Your task to perform on an android device: uninstall "DoorDash - Food Delivery" Image 0: 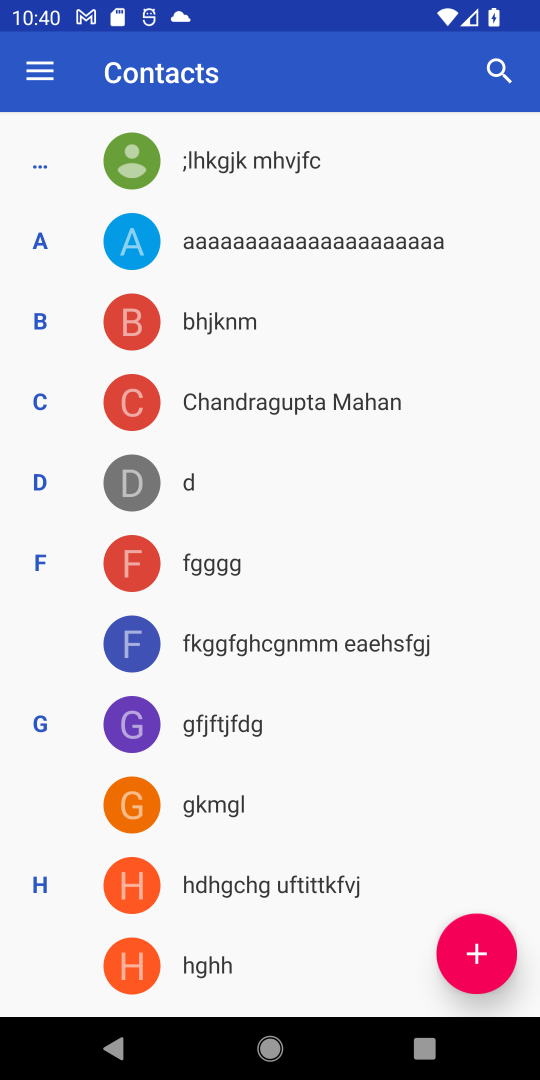
Step 0: press home button
Your task to perform on an android device: uninstall "DoorDash - Food Delivery" Image 1: 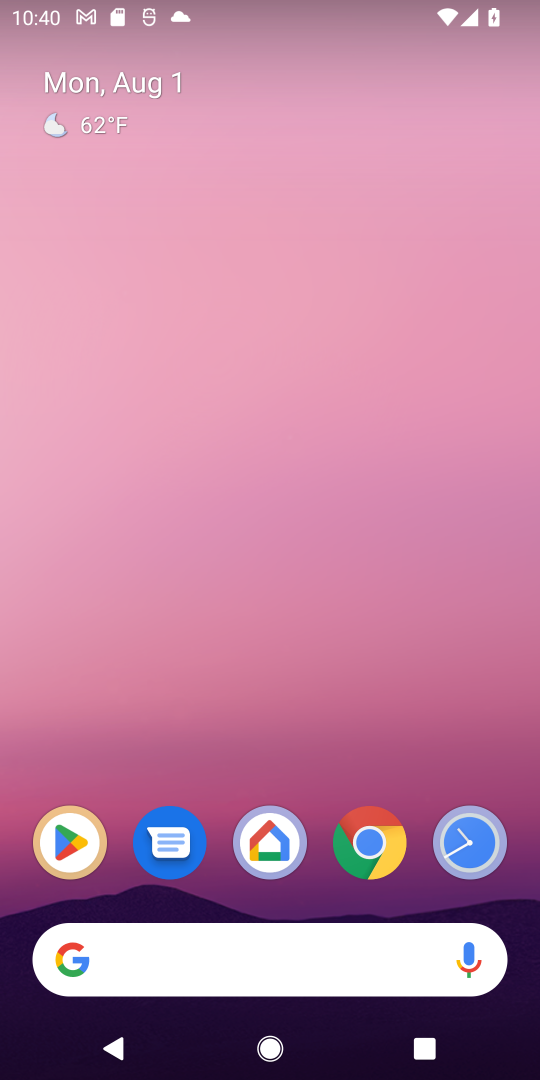
Step 1: click (78, 839)
Your task to perform on an android device: uninstall "DoorDash - Food Delivery" Image 2: 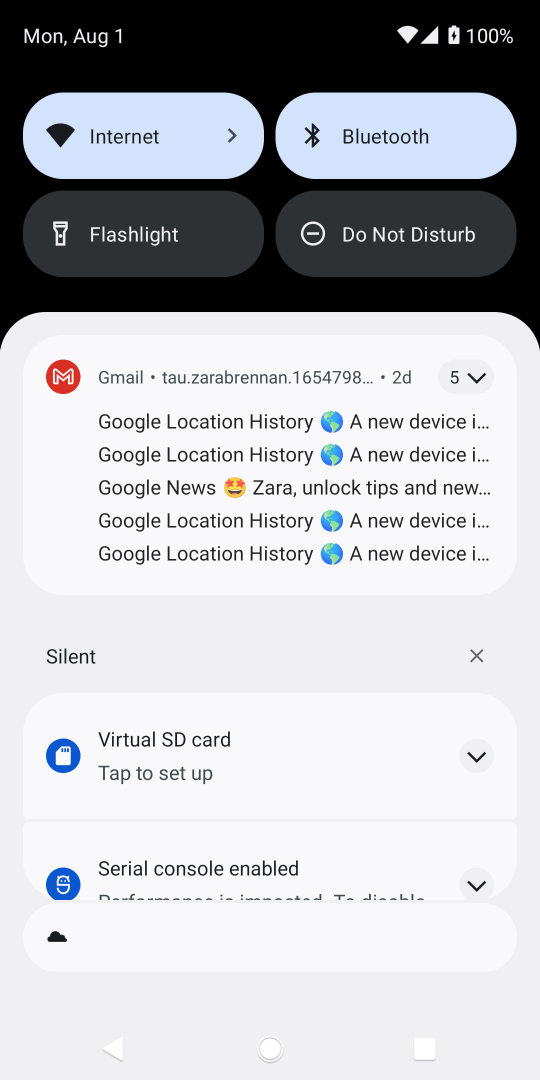
Step 2: click (70, 832)
Your task to perform on an android device: uninstall "DoorDash - Food Delivery" Image 3: 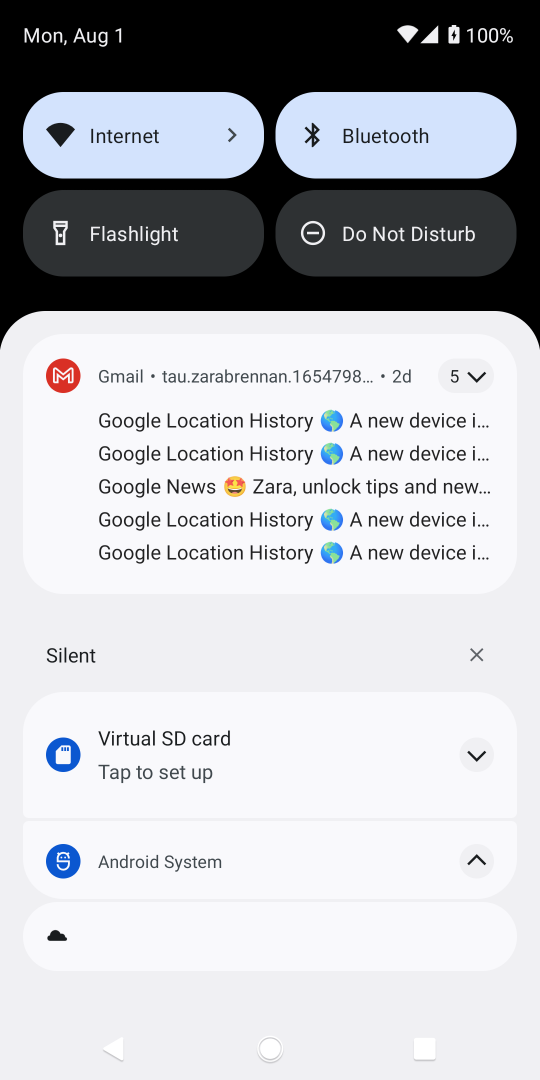
Step 3: press home button
Your task to perform on an android device: uninstall "DoorDash - Food Delivery" Image 4: 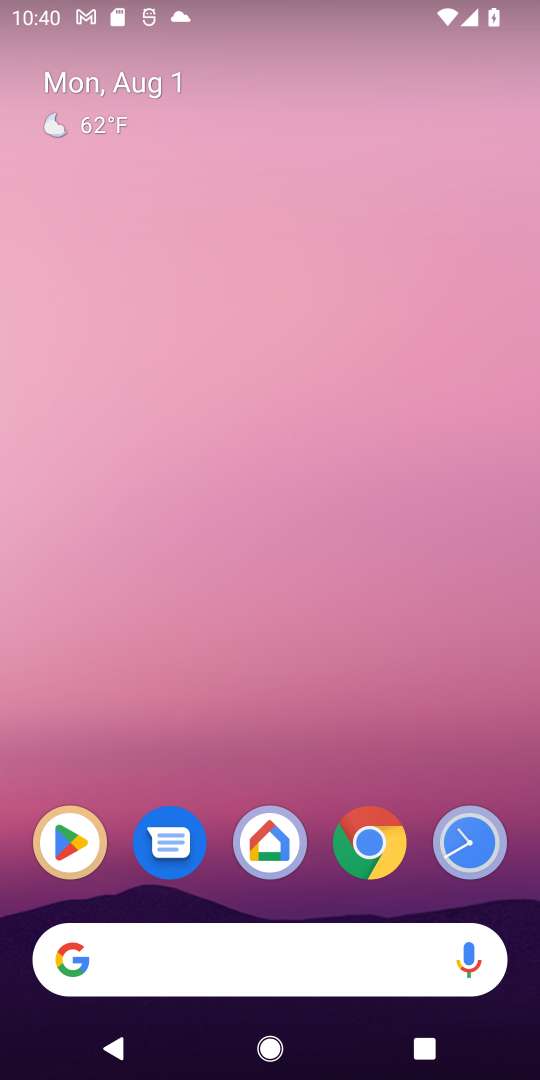
Step 4: click (90, 847)
Your task to perform on an android device: uninstall "DoorDash - Food Delivery" Image 5: 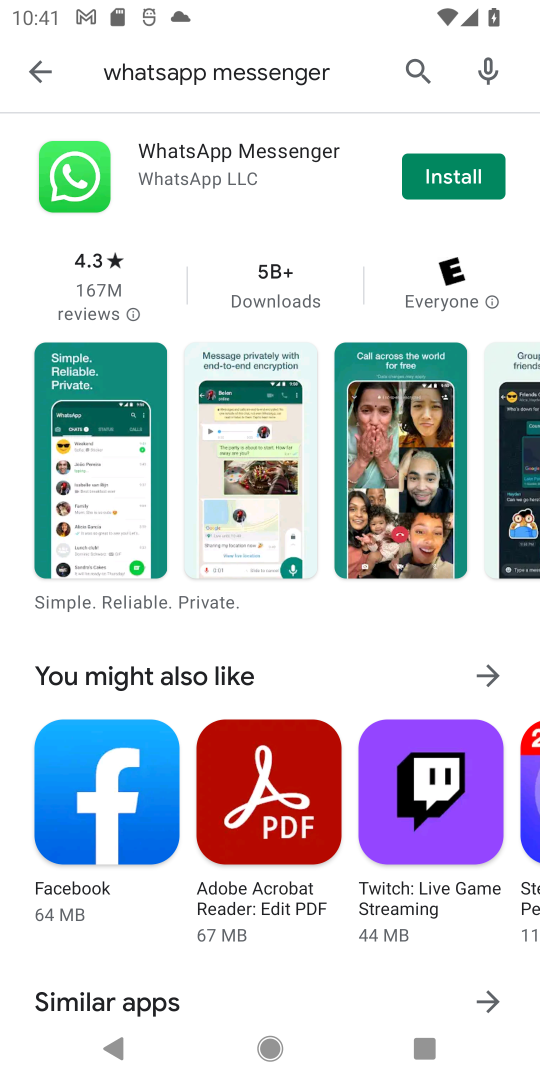
Step 5: click (413, 64)
Your task to perform on an android device: uninstall "DoorDash - Food Delivery" Image 6: 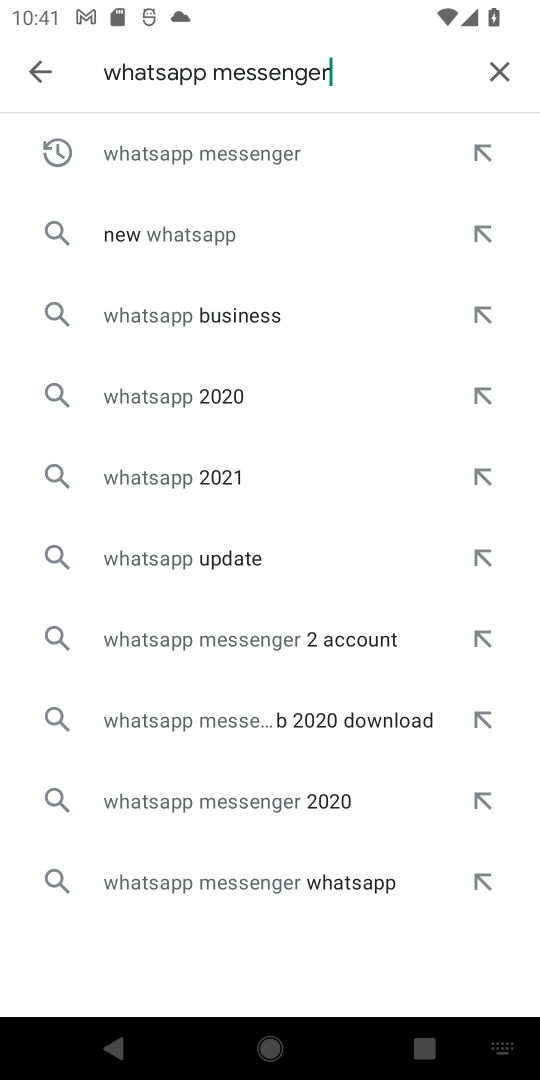
Step 6: click (502, 55)
Your task to perform on an android device: uninstall "DoorDash - Food Delivery" Image 7: 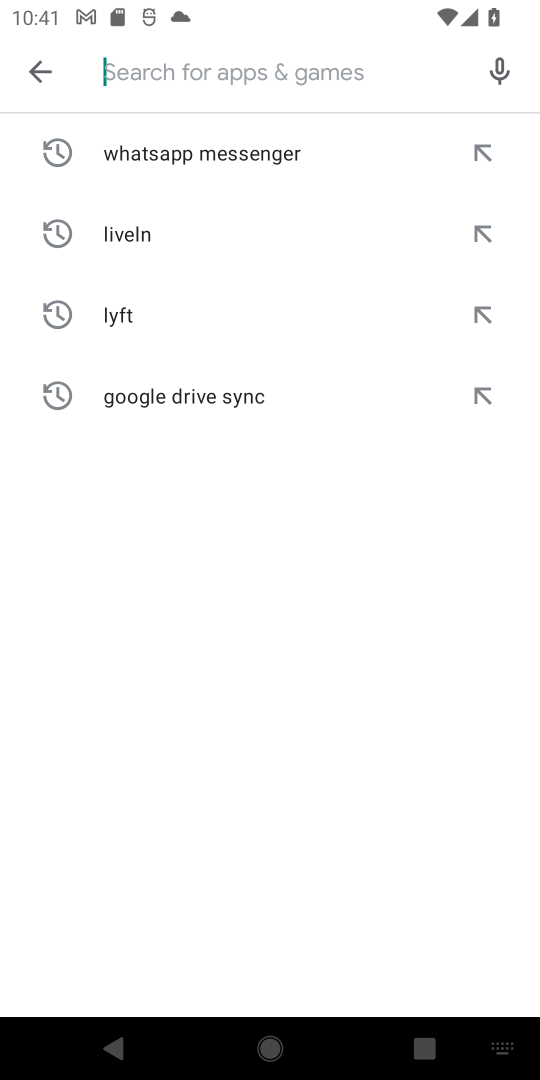
Step 7: click (175, 78)
Your task to perform on an android device: uninstall "DoorDash - Food Delivery" Image 8: 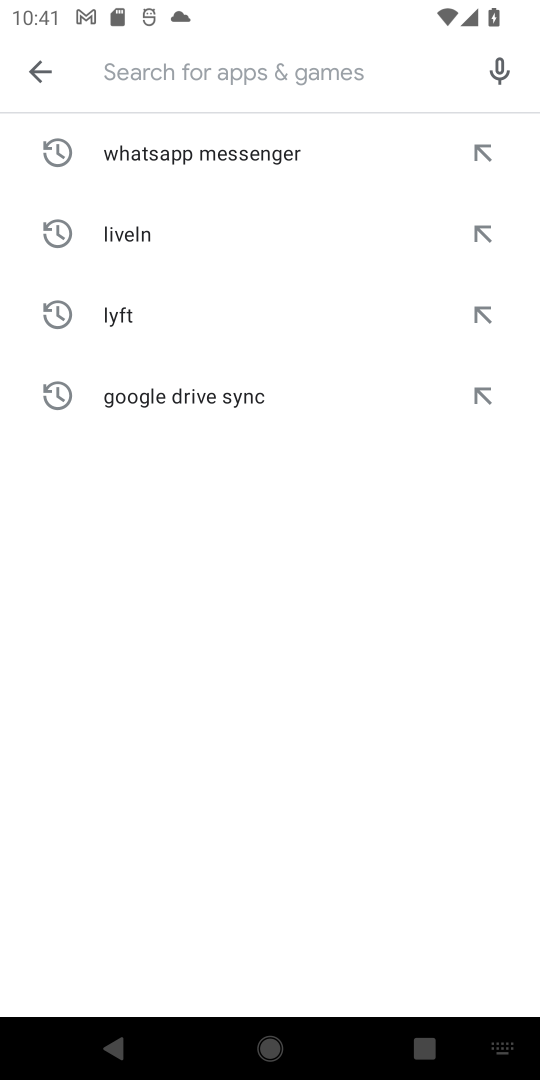
Step 8: click (255, 94)
Your task to perform on an android device: uninstall "DoorDash - Food Delivery" Image 9: 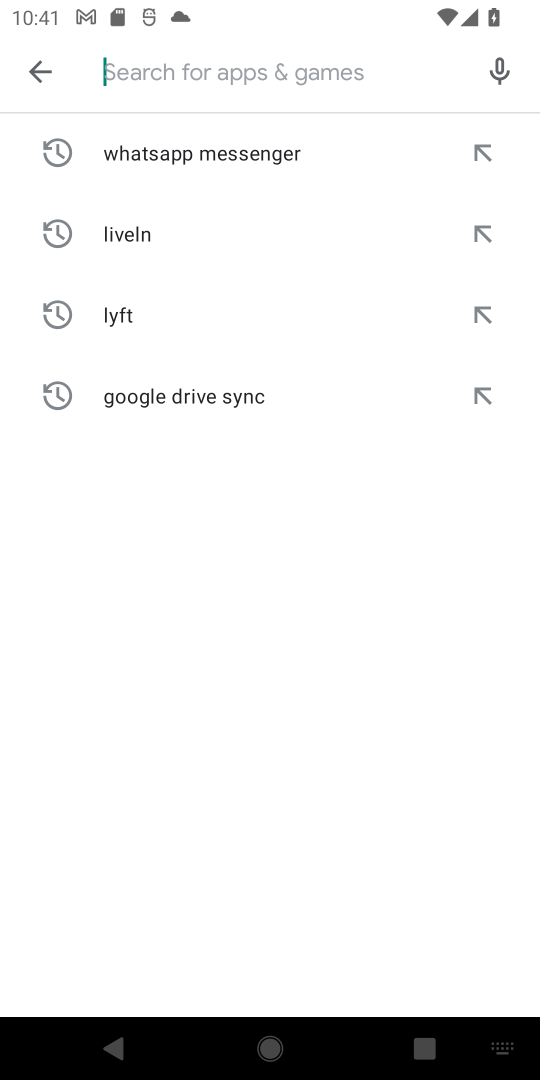
Step 9: type "DoorDash - Food Delivery"
Your task to perform on an android device: uninstall "DoorDash - Food Delivery" Image 10: 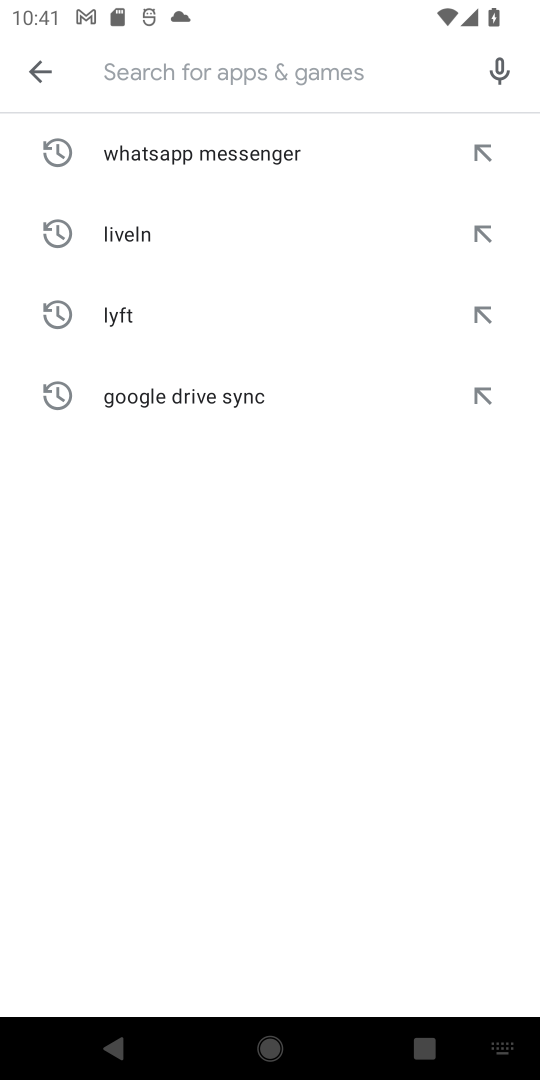
Step 10: click (148, 570)
Your task to perform on an android device: uninstall "DoorDash - Food Delivery" Image 11: 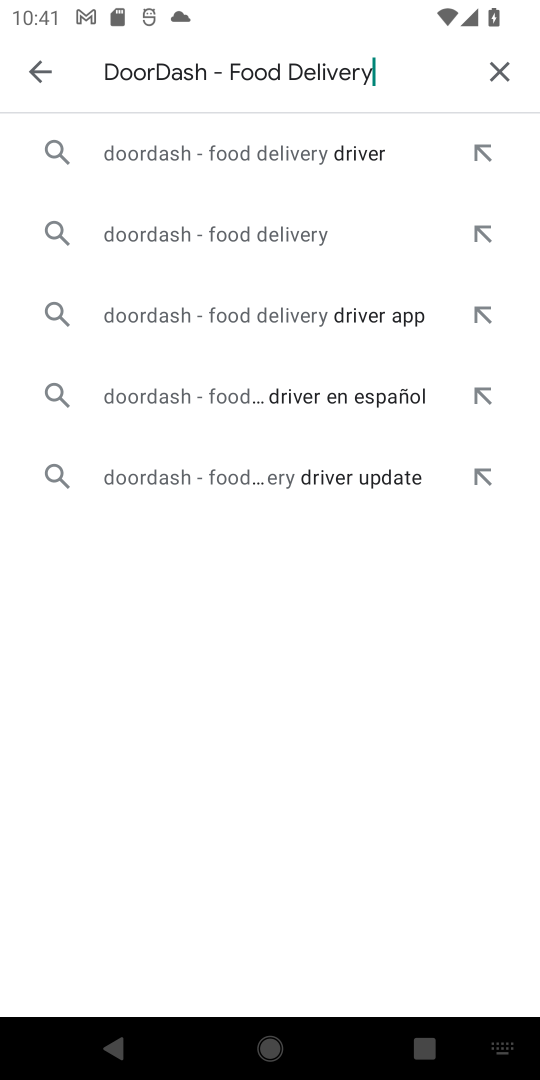
Step 11: click (261, 154)
Your task to perform on an android device: uninstall "DoorDash - Food Delivery" Image 12: 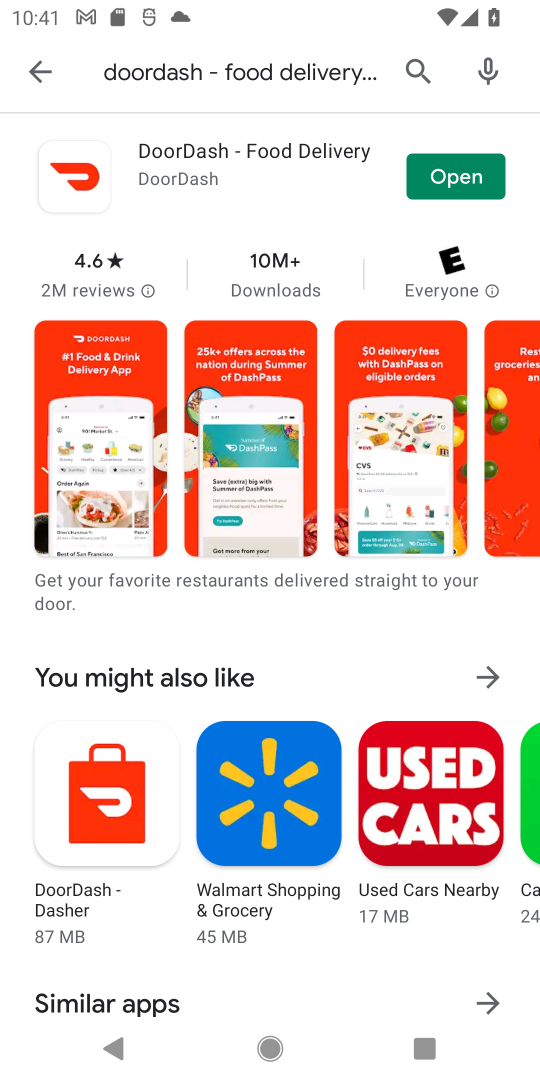
Step 12: click (176, 175)
Your task to perform on an android device: uninstall "DoorDash - Food Delivery" Image 13: 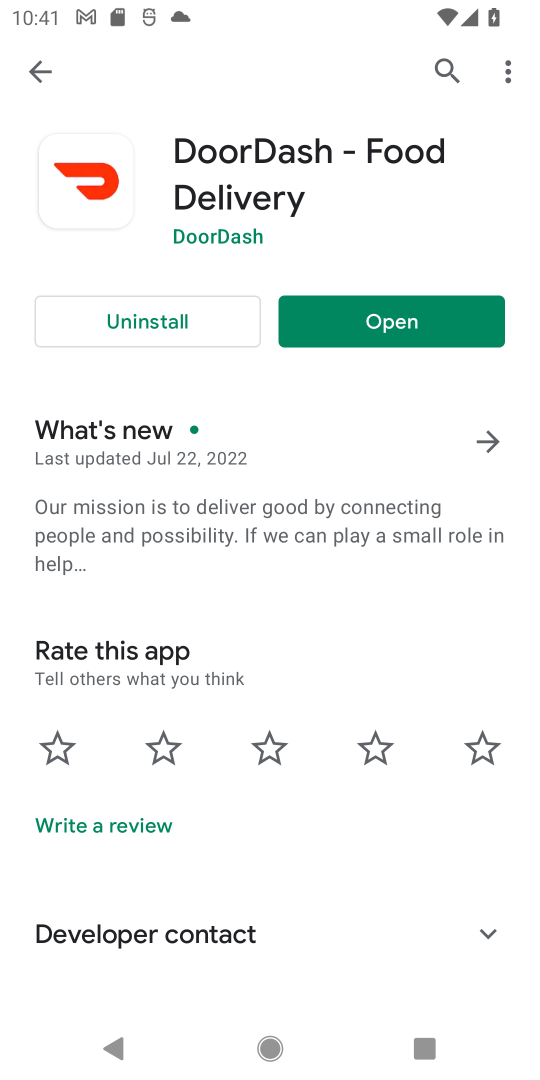
Step 13: click (173, 312)
Your task to perform on an android device: uninstall "DoorDash - Food Delivery" Image 14: 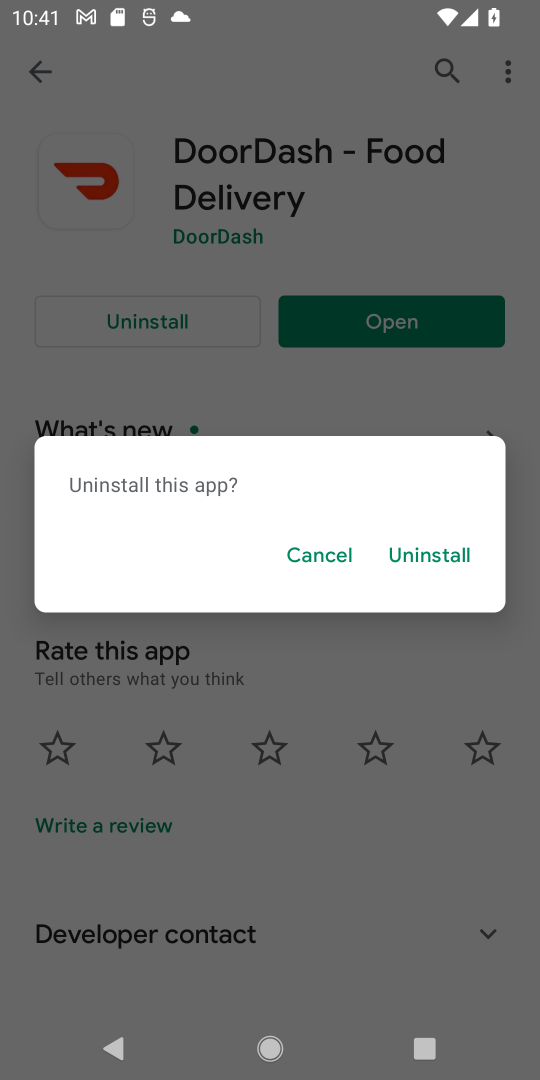
Step 14: click (419, 546)
Your task to perform on an android device: uninstall "DoorDash - Food Delivery" Image 15: 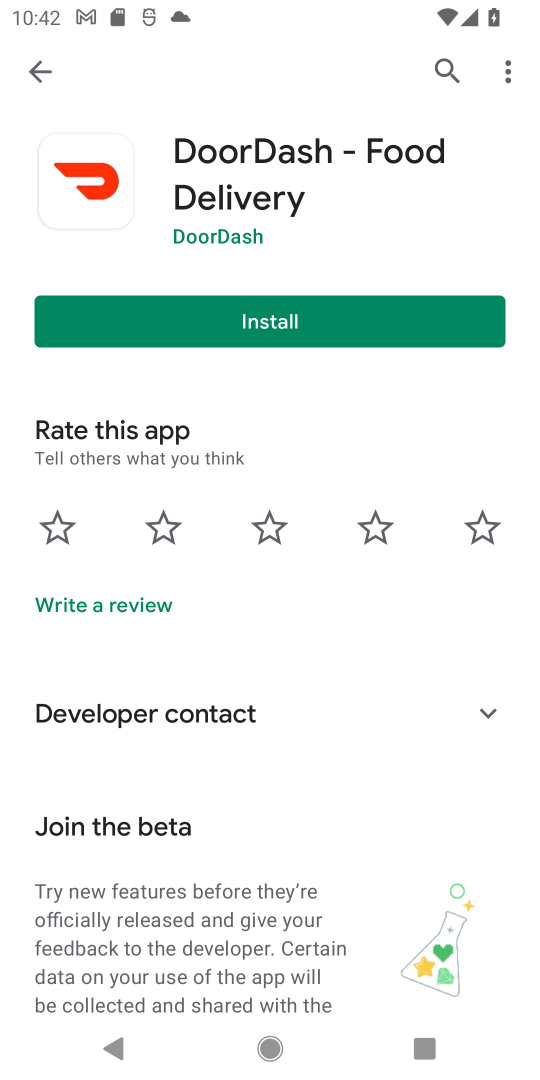
Step 15: task complete